Your task to perform on an android device: Turn off the flashlight Image 0: 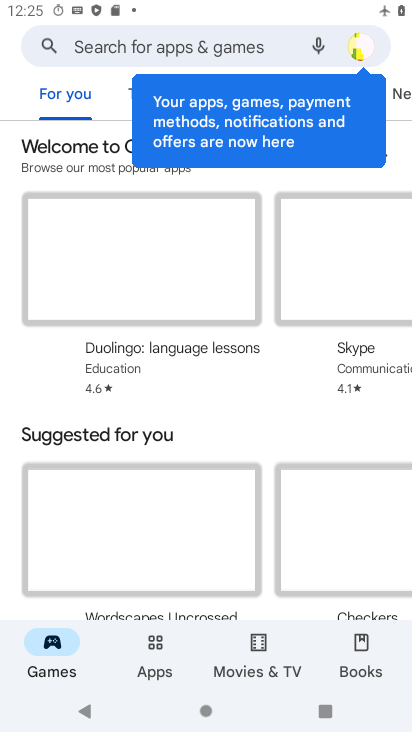
Step 0: press home button
Your task to perform on an android device: Turn off the flashlight Image 1: 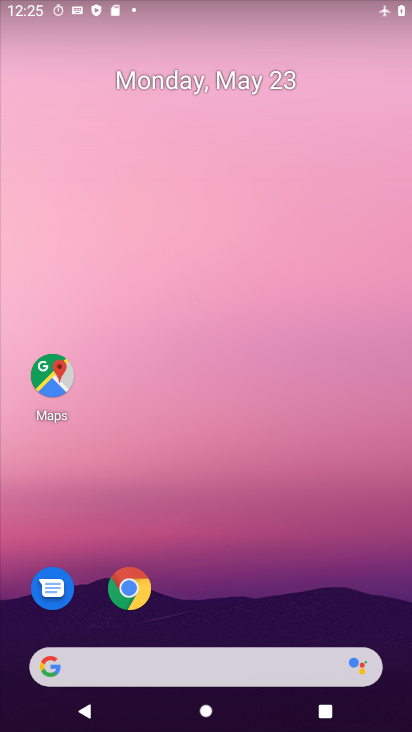
Step 1: drag from (219, 728) to (180, 35)
Your task to perform on an android device: Turn off the flashlight Image 2: 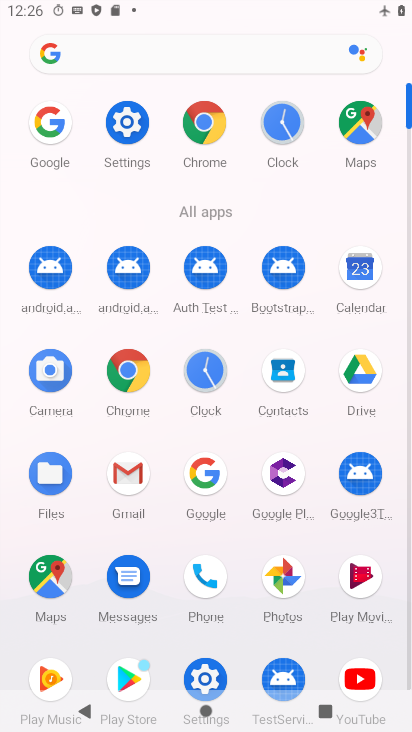
Step 2: click (127, 121)
Your task to perform on an android device: Turn off the flashlight Image 3: 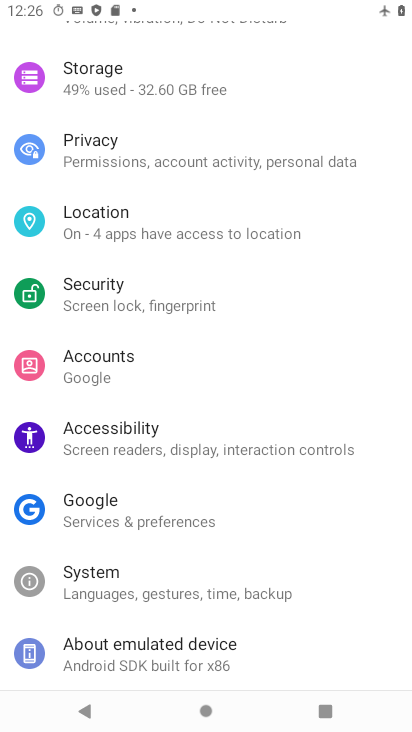
Step 3: task complete